Your task to perform on an android device: Go to notification settings Image 0: 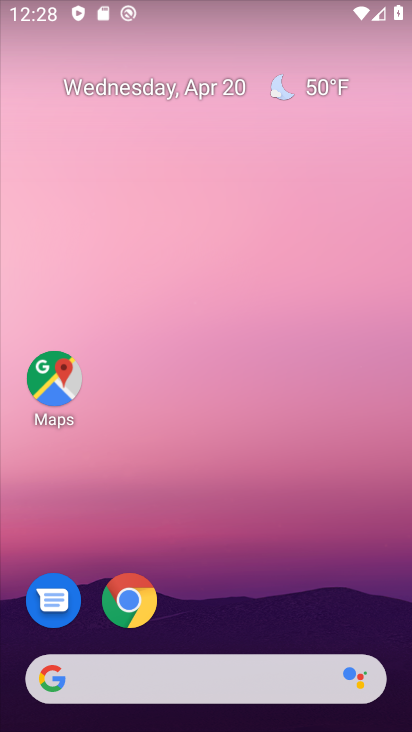
Step 0: drag from (297, 614) to (346, 148)
Your task to perform on an android device: Go to notification settings Image 1: 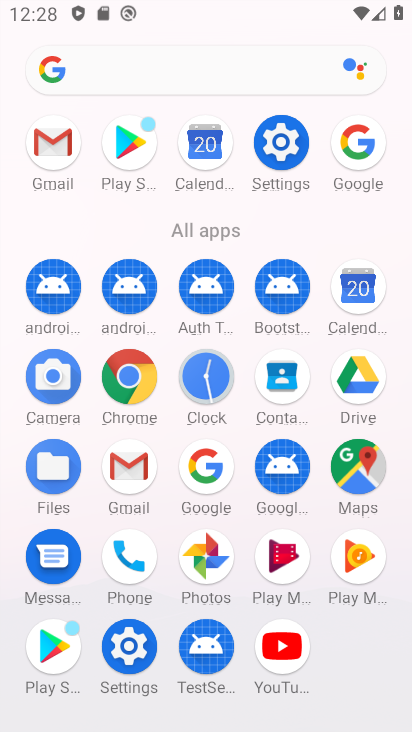
Step 1: click (271, 146)
Your task to perform on an android device: Go to notification settings Image 2: 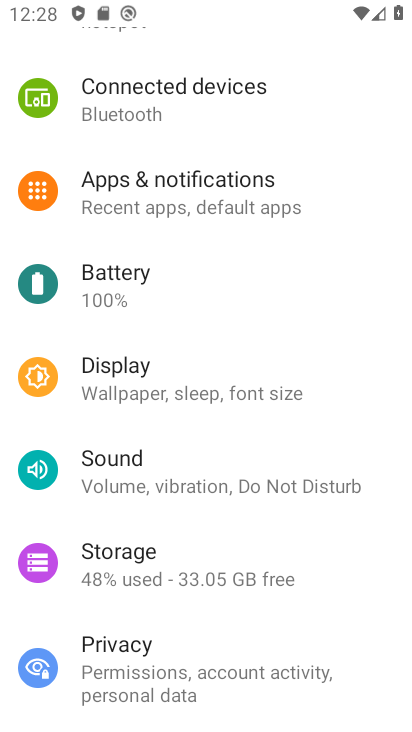
Step 2: click (240, 181)
Your task to perform on an android device: Go to notification settings Image 3: 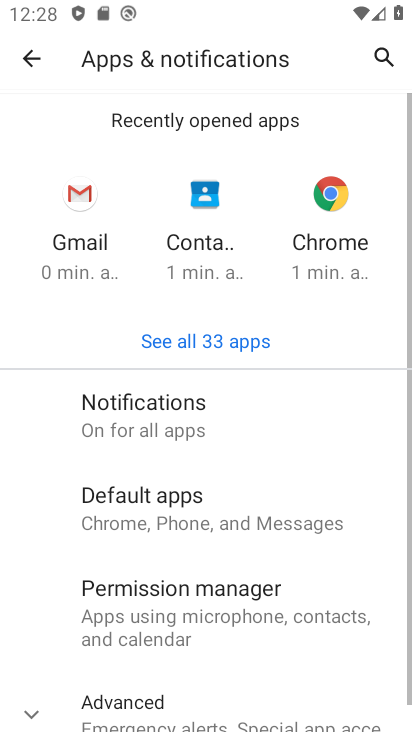
Step 3: task complete